Your task to perform on an android device: Open Wikipedia Image 0: 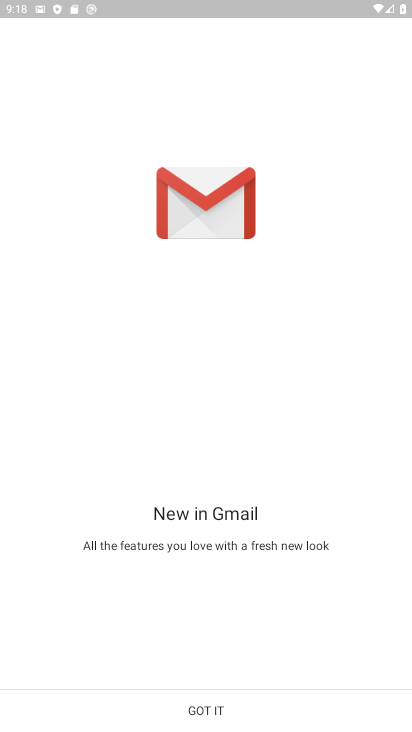
Step 0: press home button
Your task to perform on an android device: Open Wikipedia Image 1: 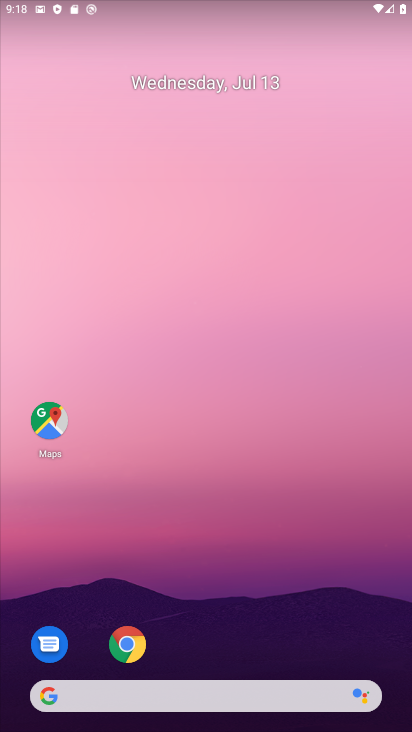
Step 1: click (133, 656)
Your task to perform on an android device: Open Wikipedia Image 2: 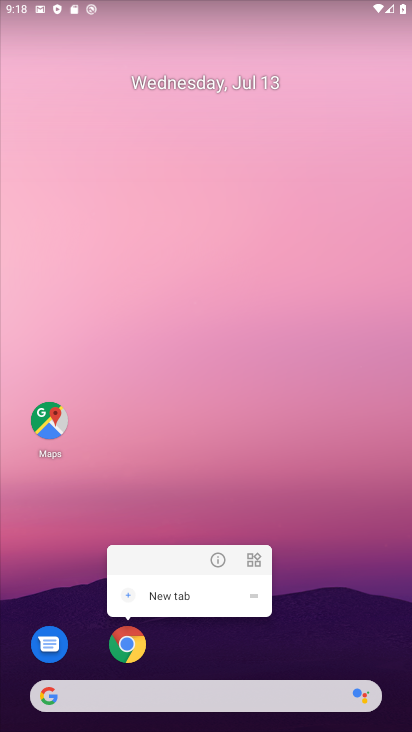
Step 2: click (133, 655)
Your task to perform on an android device: Open Wikipedia Image 3: 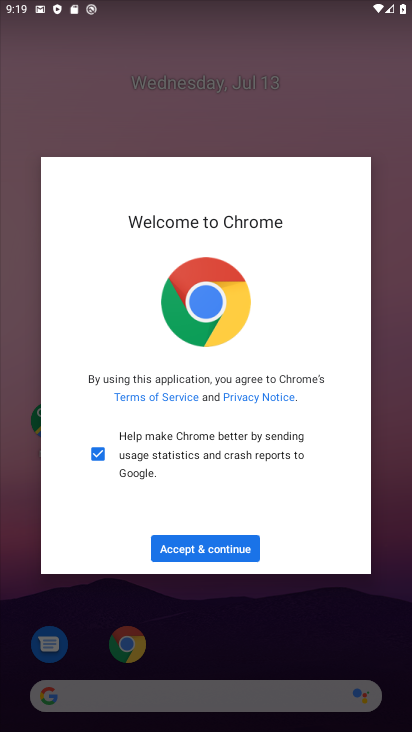
Step 3: click (195, 548)
Your task to perform on an android device: Open Wikipedia Image 4: 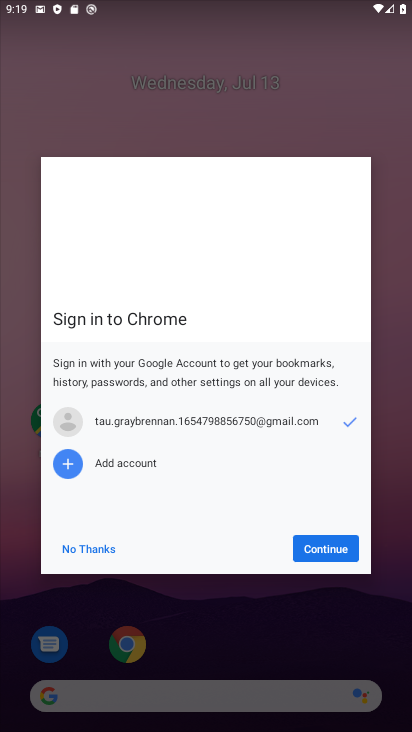
Step 4: click (326, 554)
Your task to perform on an android device: Open Wikipedia Image 5: 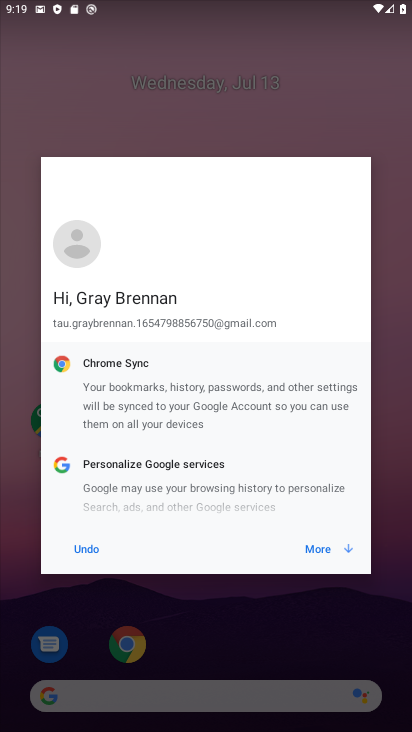
Step 5: click (326, 554)
Your task to perform on an android device: Open Wikipedia Image 6: 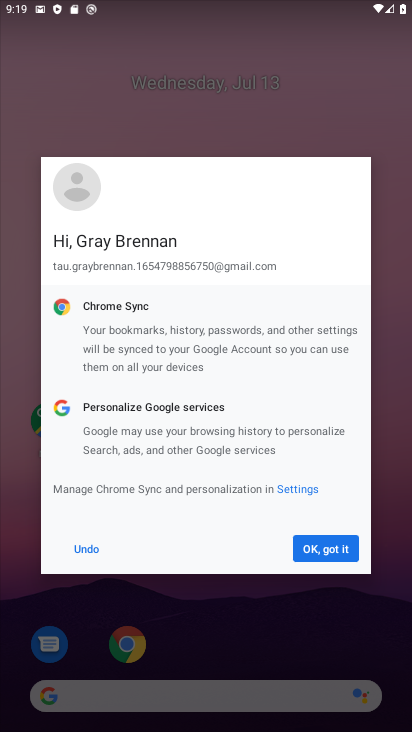
Step 6: click (326, 554)
Your task to perform on an android device: Open Wikipedia Image 7: 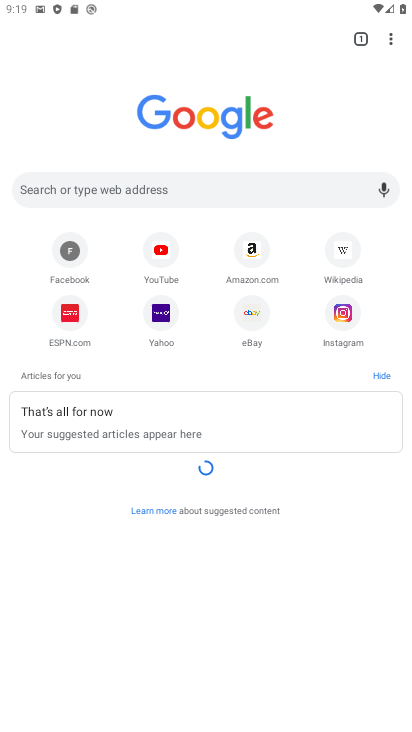
Step 7: click (353, 258)
Your task to perform on an android device: Open Wikipedia Image 8: 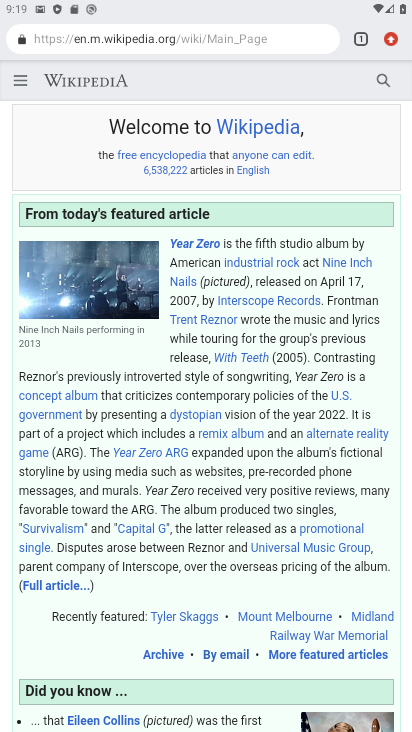
Step 8: task complete